Your task to perform on an android device: delete the emails in spam in the gmail app Image 0: 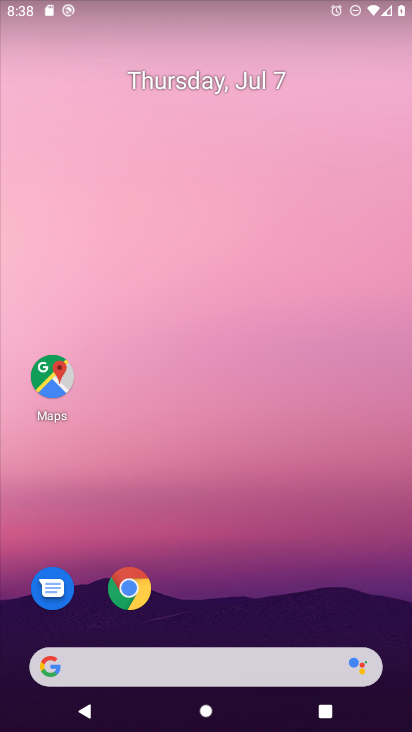
Step 0: drag from (347, 626) to (330, 333)
Your task to perform on an android device: delete the emails in spam in the gmail app Image 1: 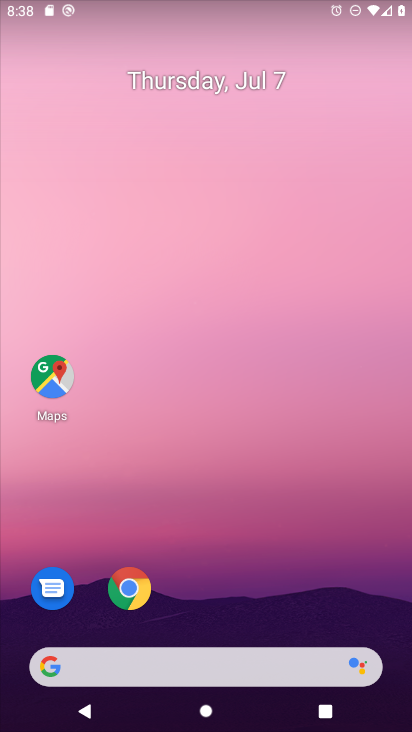
Step 1: drag from (219, 695) to (229, 332)
Your task to perform on an android device: delete the emails in spam in the gmail app Image 2: 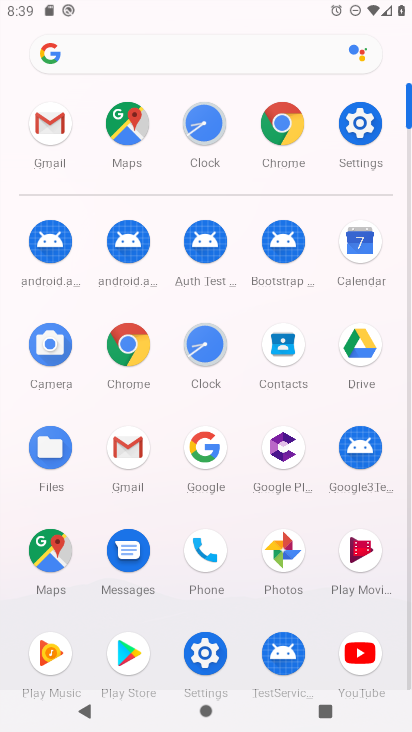
Step 2: click (117, 450)
Your task to perform on an android device: delete the emails in spam in the gmail app Image 3: 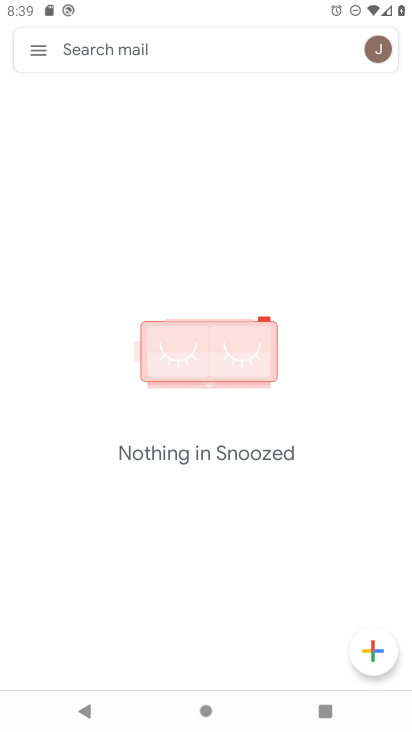
Step 3: click (39, 53)
Your task to perform on an android device: delete the emails in spam in the gmail app Image 4: 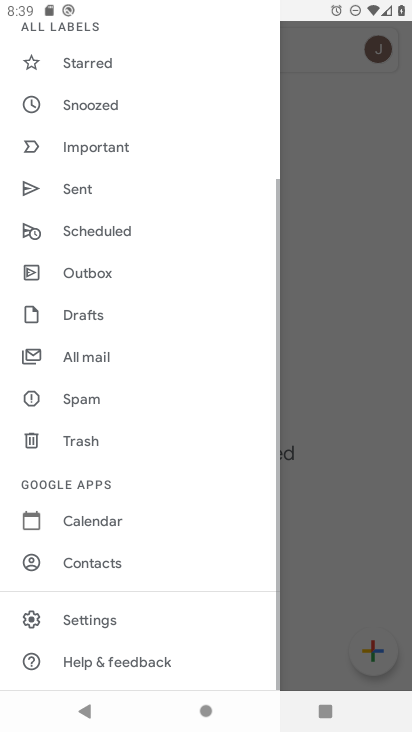
Step 4: click (103, 394)
Your task to perform on an android device: delete the emails in spam in the gmail app Image 5: 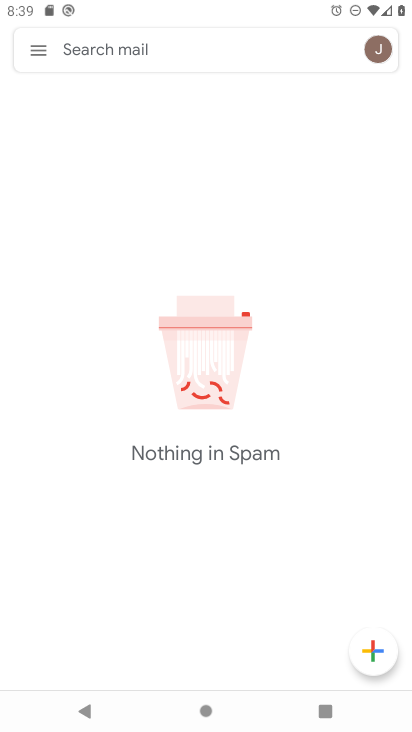
Step 5: task complete